Your task to perform on an android device: find photos in the google photos app Image 0: 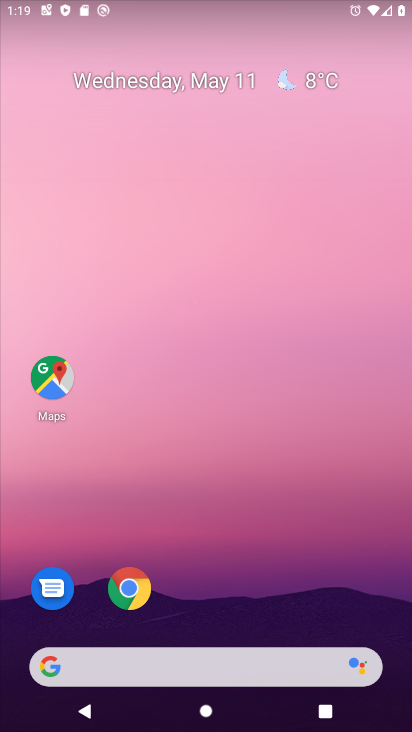
Step 0: drag from (337, 629) to (138, 6)
Your task to perform on an android device: find photos in the google photos app Image 1: 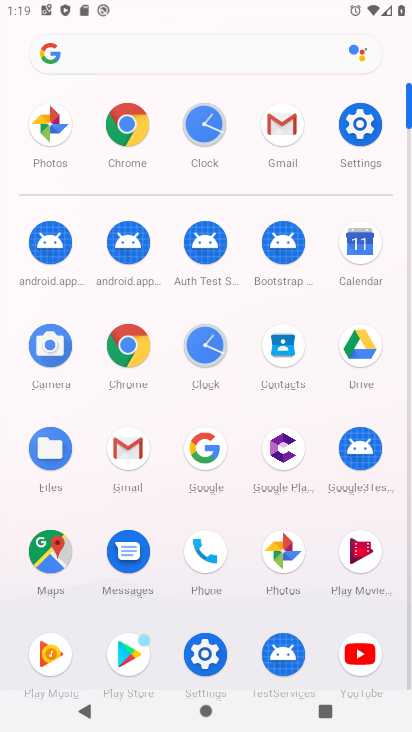
Step 1: click (54, 127)
Your task to perform on an android device: find photos in the google photos app Image 2: 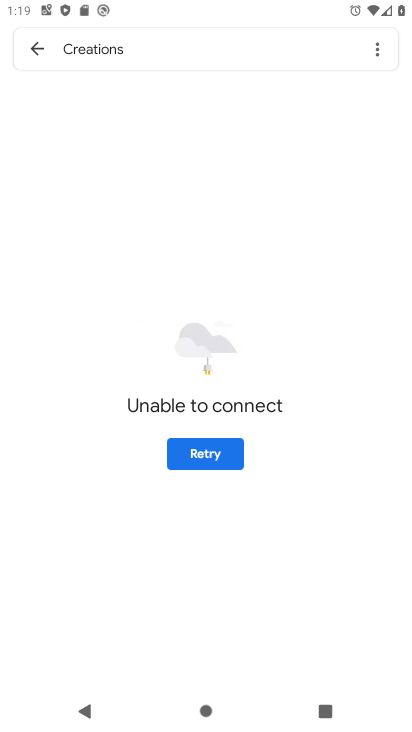
Step 2: click (195, 465)
Your task to perform on an android device: find photos in the google photos app Image 3: 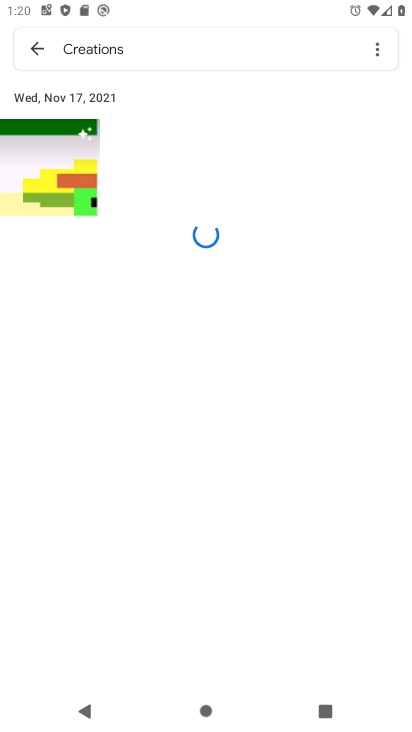
Step 3: click (34, 49)
Your task to perform on an android device: find photos in the google photos app Image 4: 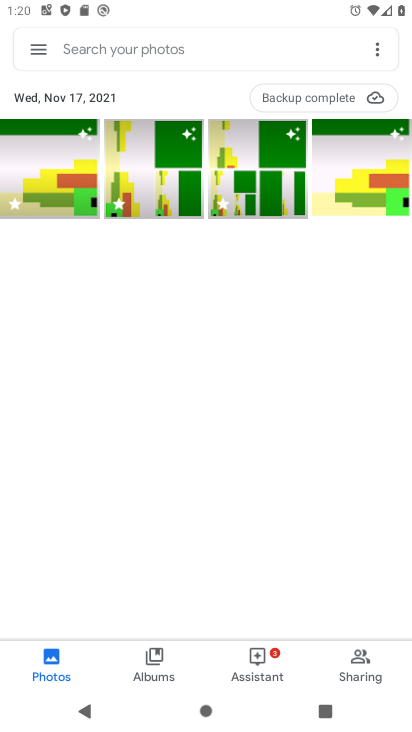
Step 4: click (44, 678)
Your task to perform on an android device: find photos in the google photos app Image 5: 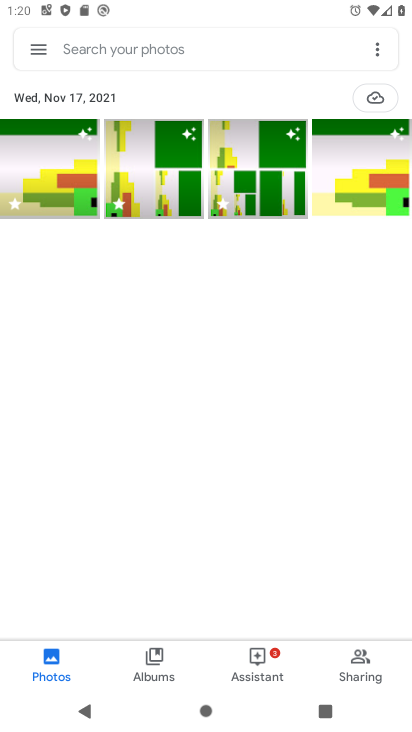
Step 5: task complete